Your task to perform on an android device: Set the phone to "Do not disturb". Image 0: 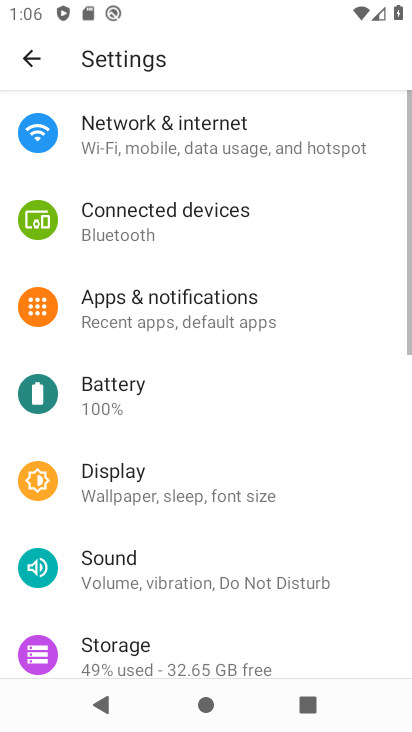
Step 0: click (217, 578)
Your task to perform on an android device: Set the phone to "Do not disturb". Image 1: 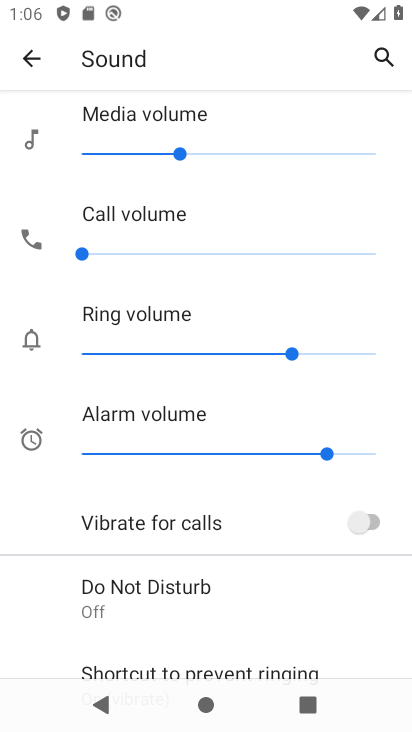
Step 1: click (190, 600)
Your task to perform on an android device: Set the phone to "Do not disturb". Image 2: 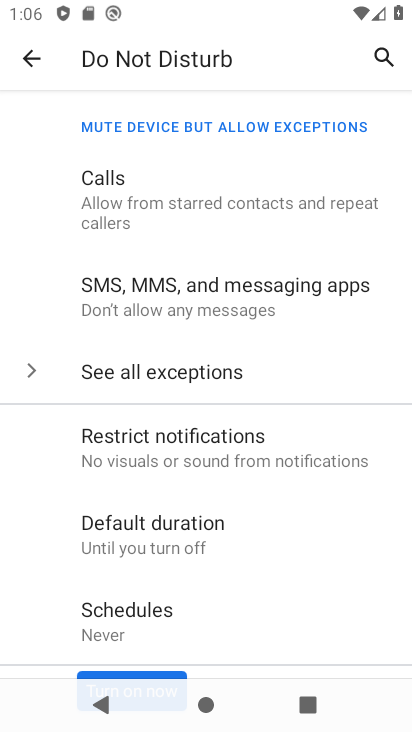
Step 2: drag from (183, 640) to (175, 162)
Your task to perform on an android device: Set the phone to "Do not disturb". Image 3: 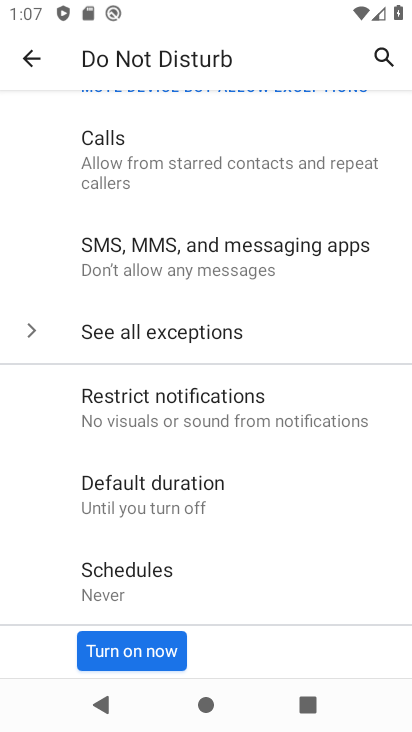
Step 3: click (151, 392)
Your task to perform on an android device: Set the phone to "Do not disturb". Image 4: 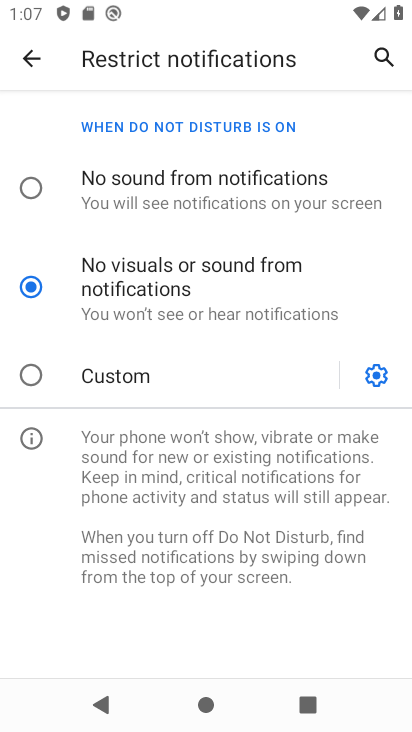
Step 4: click (39, 58)
Your task to perform on an android device: Set the phone to "Do not disturb". Image 5: 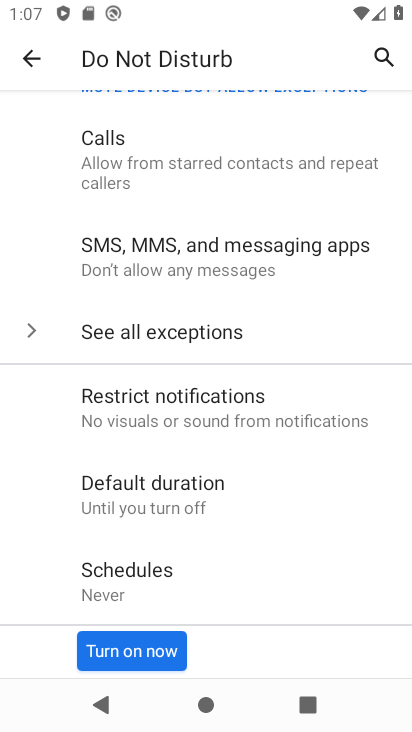
Step 5: click (135, 657)
Your task to perform on an android device: Set the phone to "Do not disturb". Image 6: 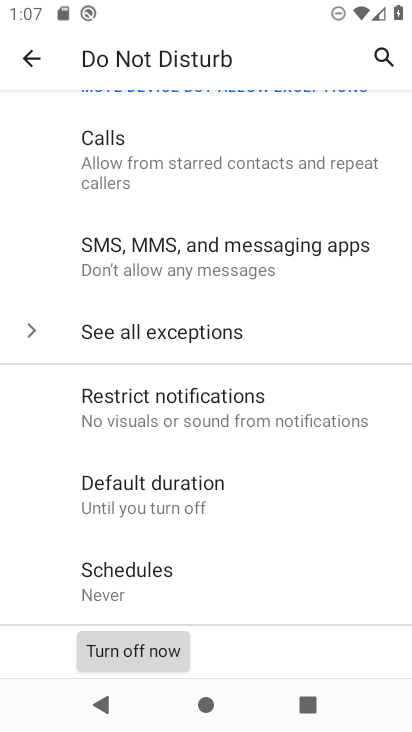
Step 6: task complete